Your task to perform on an android device: Go to eBay Image 0: 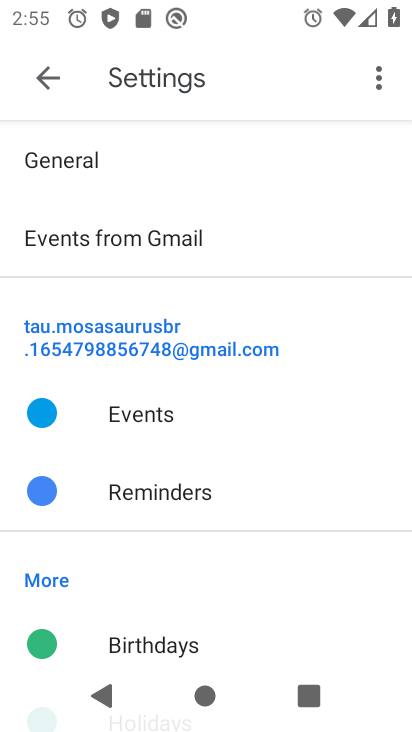
Step 0: press home button
Your task to perform on an android device: Go to eBay Image 1: 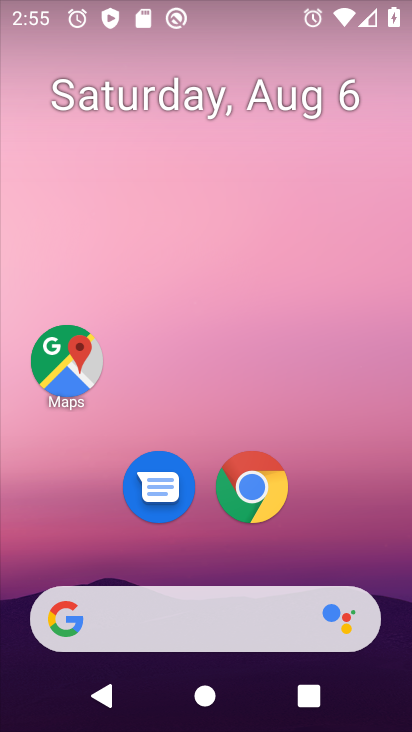
Step 1: click (272, 517)
Your task to perform on an android device: Go to eBay Image 2: 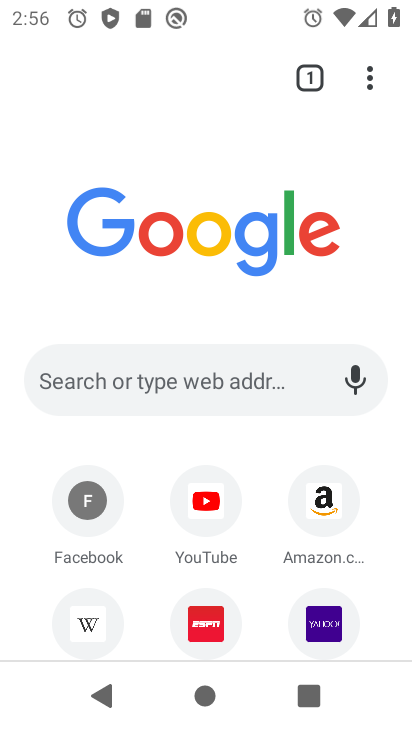
Step 2: click (249, 361)
Your task to perform on an android device: Go to eBay Image 3: 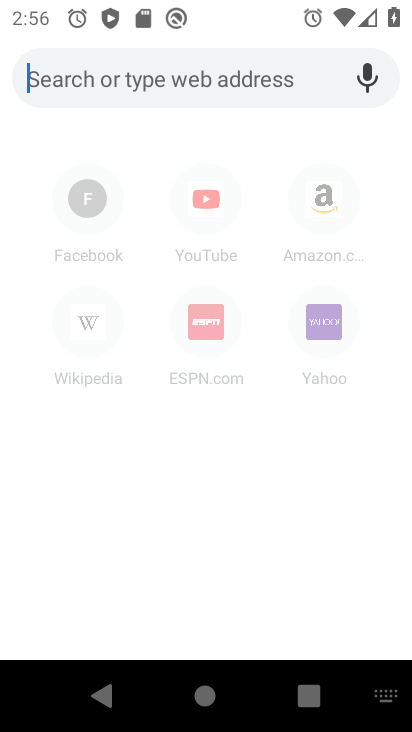
Step 3: type "ebay.com"
Your task to perform on an android device: Go to eBay Image 4: 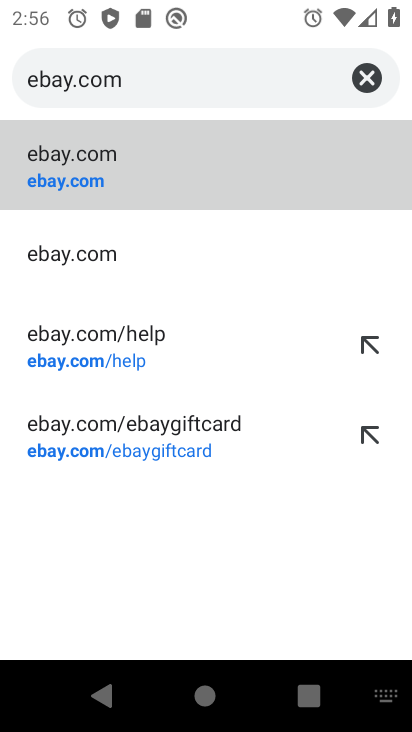
Step 4: click (237, 156)
Your task to perform on an android device: Go to eBay Image 5: 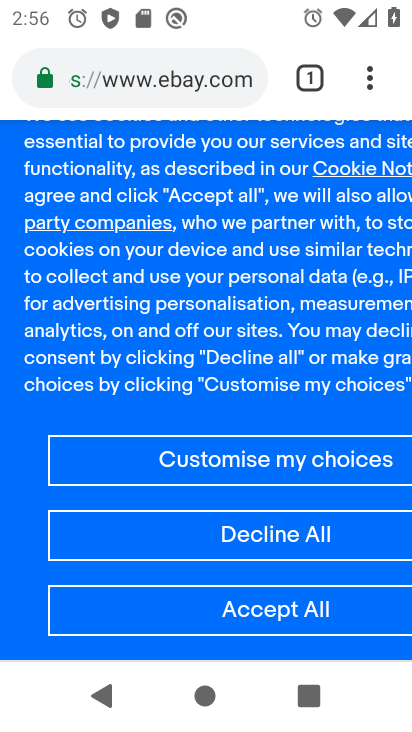
Step 5: task complete